Your task to perform on an android device: delete the emails in spam in the gmail app Image 0: 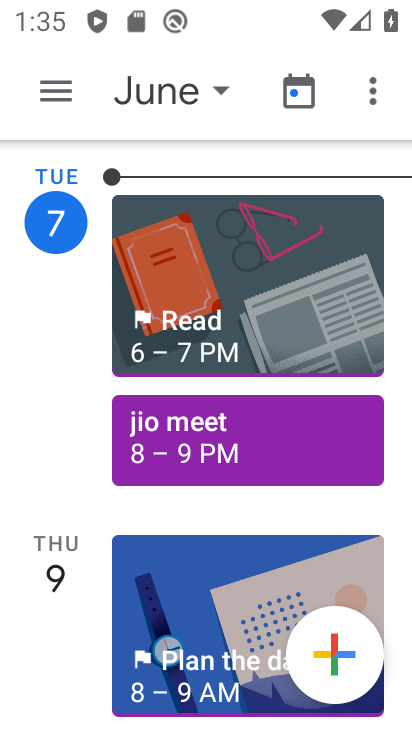
Step 0: press home button
Your task to perform on an android device: delete the emails in spam in the gmail app Image 1: 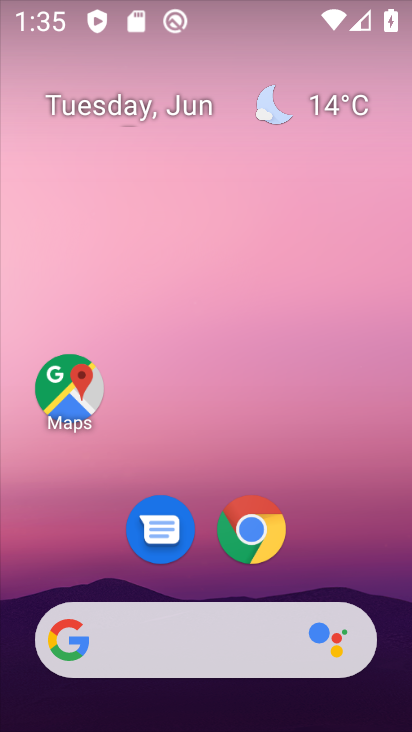
Step 1: drag from (313, 559) to (250, 97)
Your task to perform on an android device: delete the emails in spam in the gmail app Image 2: 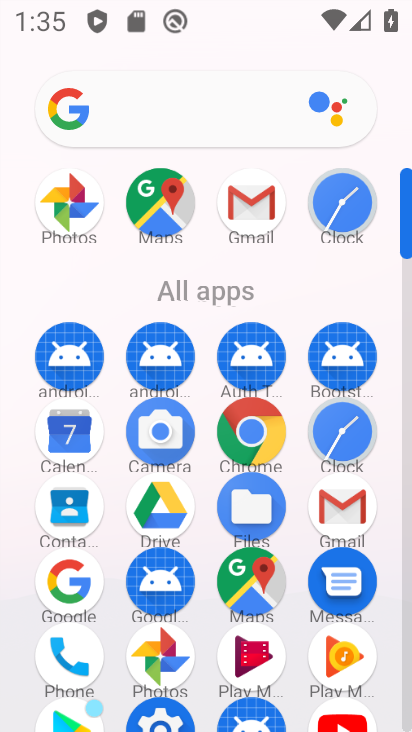
Step 2: click (232, 208)
Your task to perform on an android device: delete the emails in spam in the gmail app Image 3: 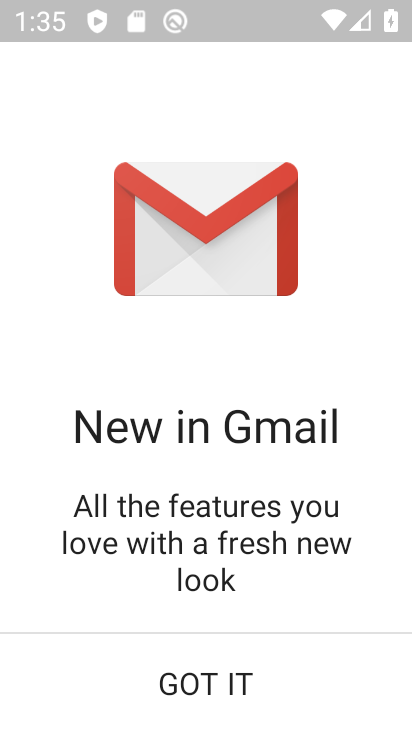
Step 3: click (210, 691)
Your task to perform on an android device: delete the emails in spam in the gmail app Image 4: 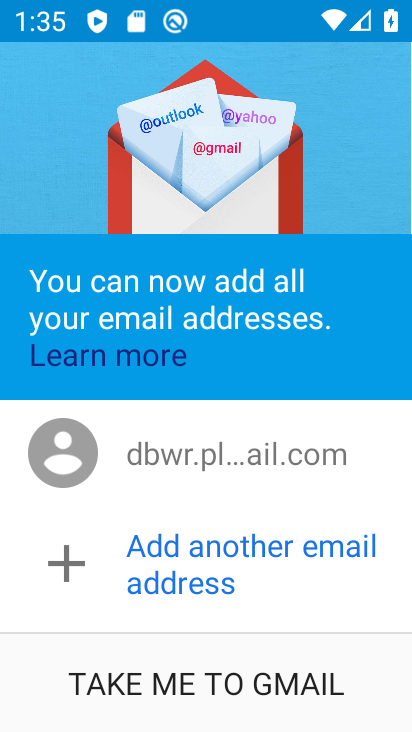
Step 4: click (183, 682)
Your task to perform on an android device: delete the emails in spam in the gmail app Image 5: 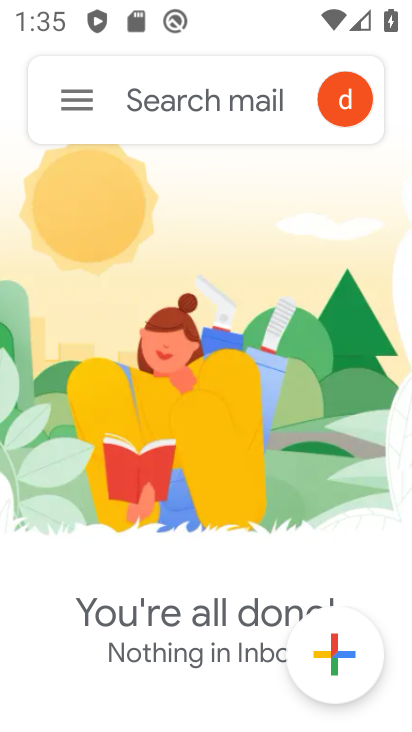
Step 5: click (76, 100)
Your task to perform on an android device: delete the emails in spam in the gmail app Image 6: 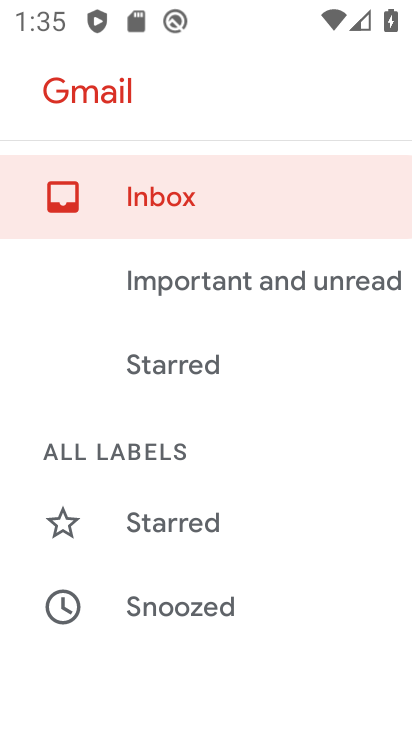
Step 6: drag from (204, 578) to (205, 84)
Your task to perform on an android device: delete the emails in spam in the gmail app Image 7: 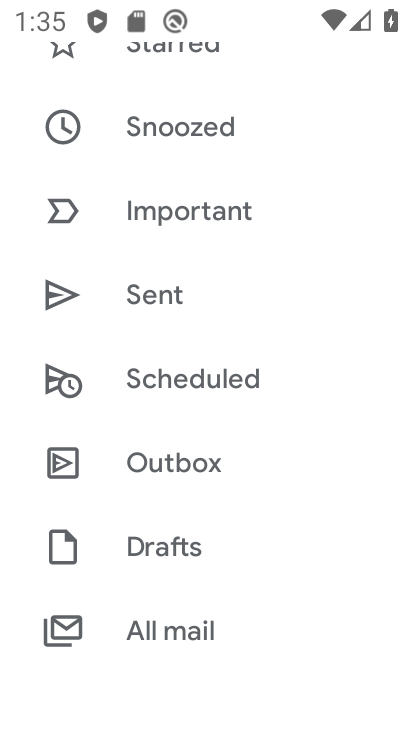
Step 7: drag from (225, 627) to (218, 193)
Your task to perform on an android device: delete the emails in spam in the gmail app Image 8: 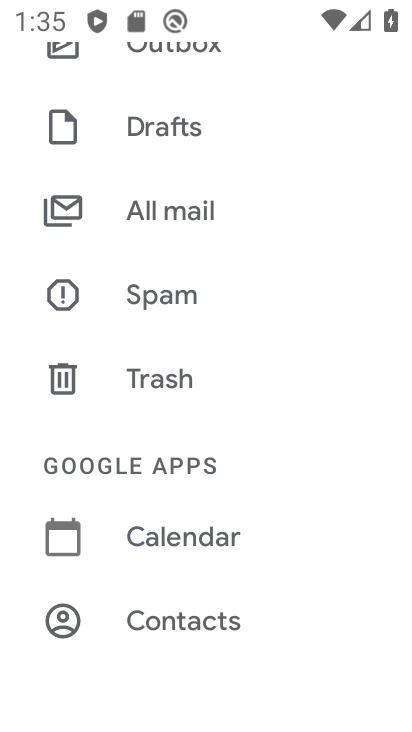
Step 8: click (143, 277)
Your task to perform on an android device: delete the emails in spam in the gmail app Image 9: 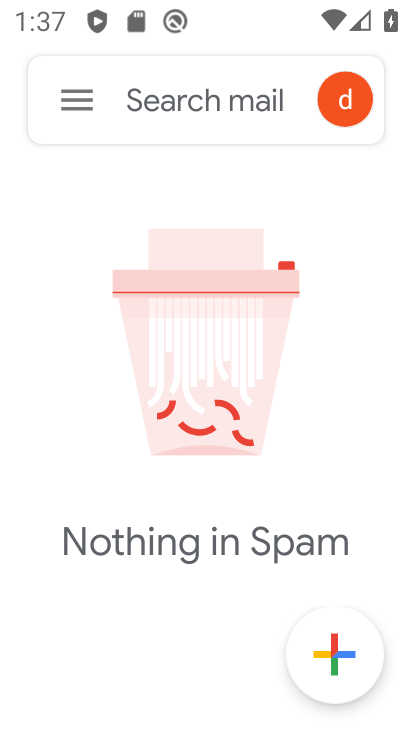
Step 9: task complete